Your task to perform on an android device: Is it going to rain today? Image 0: 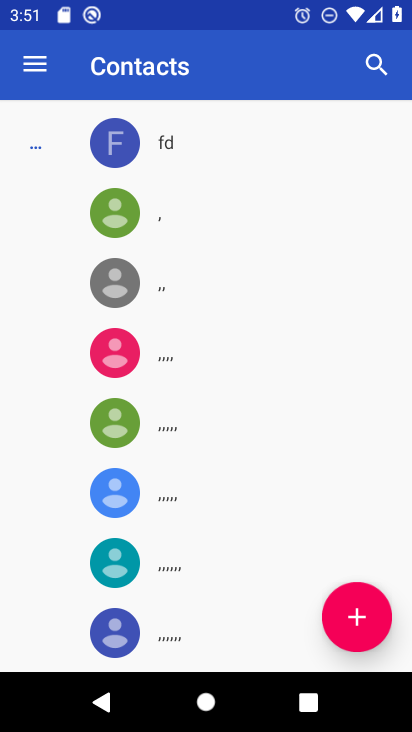
Step 0: press home button
Your task to perform on an android device: Is it going to rain today? Image 1: 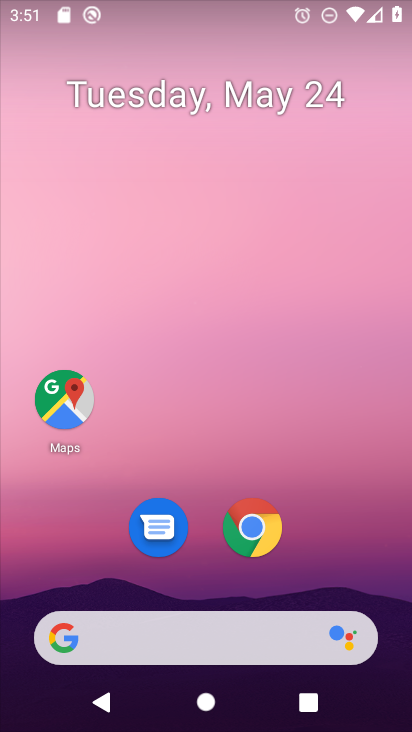
Step 1: click (177, 644)
Your task to perform on an android device: Is it going to rain today? Image 2: 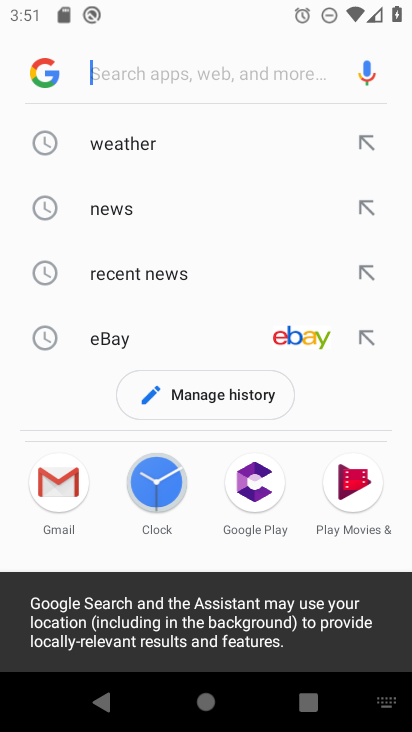
Step 2: click (189, 155)
Your task to perform on an android device: Is it going to rain today? Image 3: 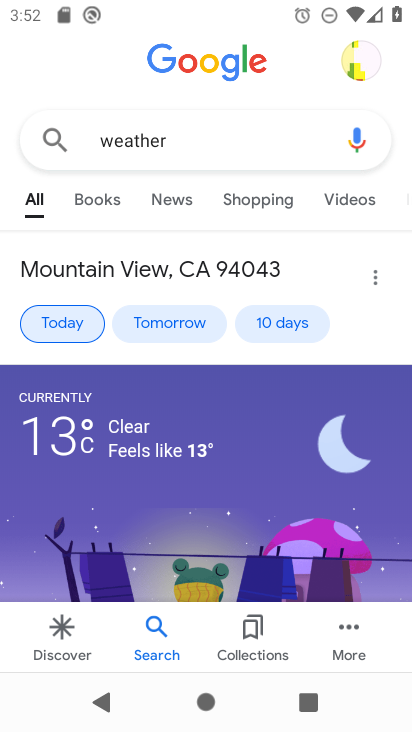
Step 3: task complete